Your task to perform on an android device: Open Chrome and go to settings Image 0: 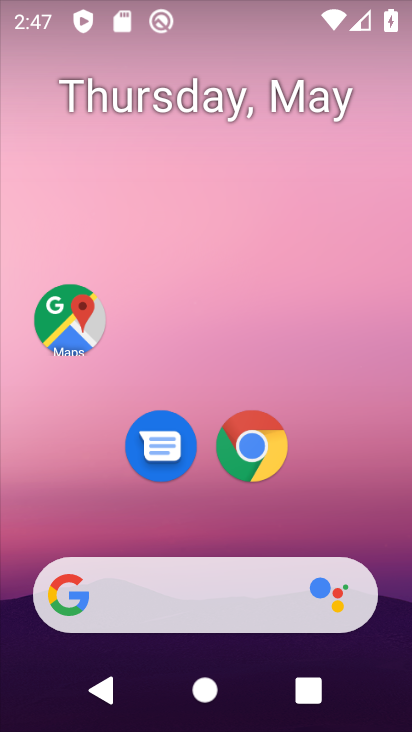
Step 0: click (252, 458)
Your task to perform on an android device: Open Chrome and go to settings Image 1: 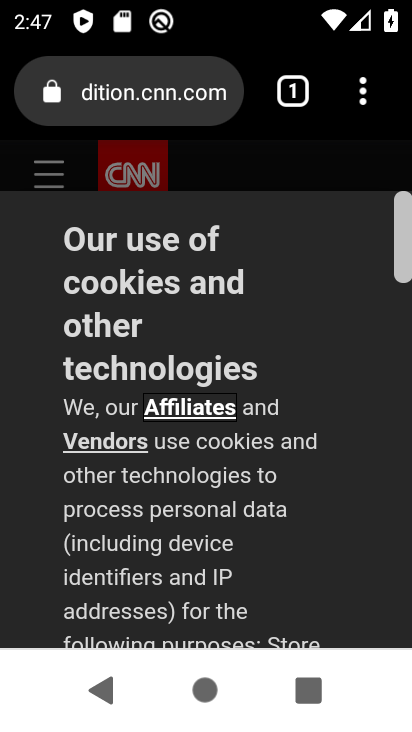
Step 1: click (362, 93)
Your task to perform on an android device: Open Chrome and go to settings Image 2: 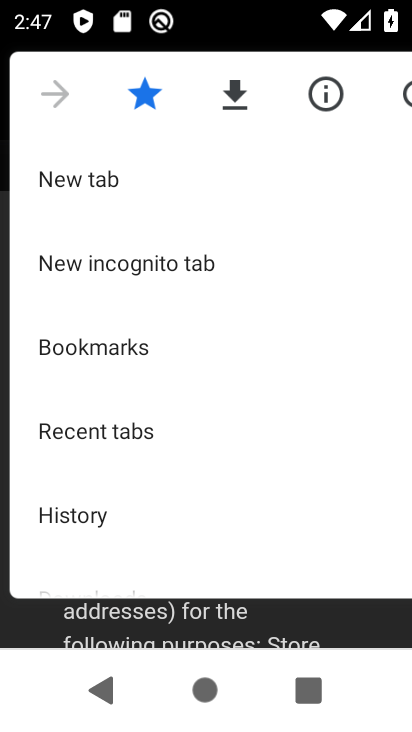
Step 2: drag from (236, 475) to (251, 133)
Your task to perform on an android device: Open Chrome and go to settings Image 3: 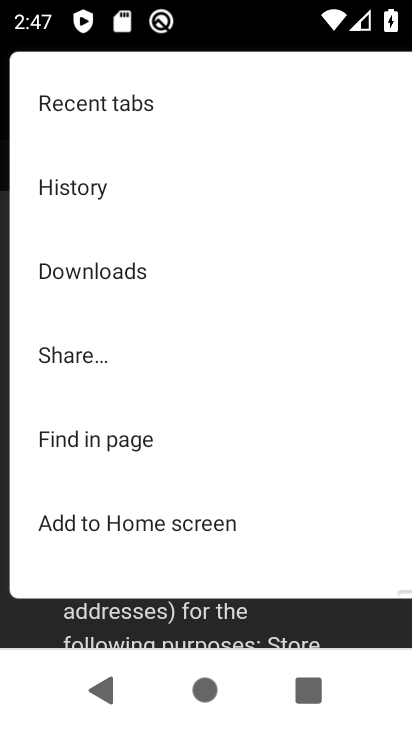
Step 3: drag from (233, 471) to (208, 120)
Your task to perform on an android device: Open Chrome and go to settings Image 4: 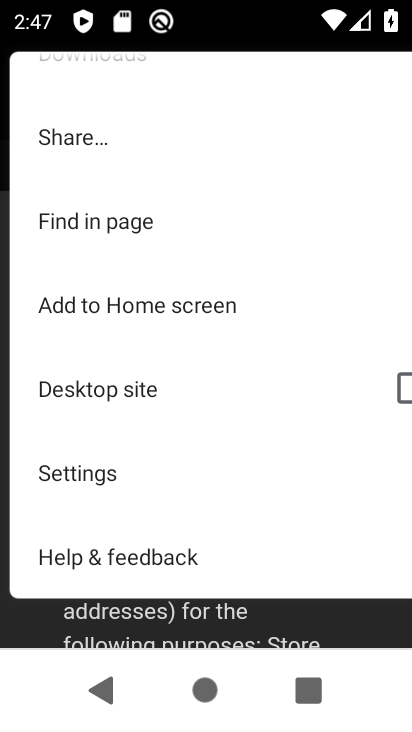
Step 4: click (63, 471)
Your task to perform on an android device: Open Chrome and go to settings Image 5: 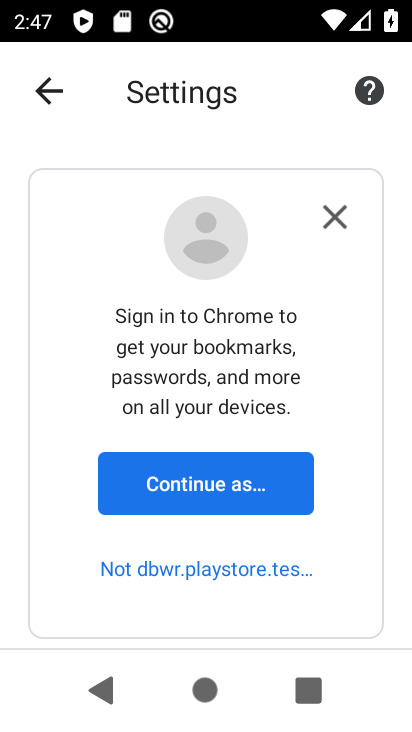
Step 5: task complete